Your task to perform on an android device: add a contact Image 0: 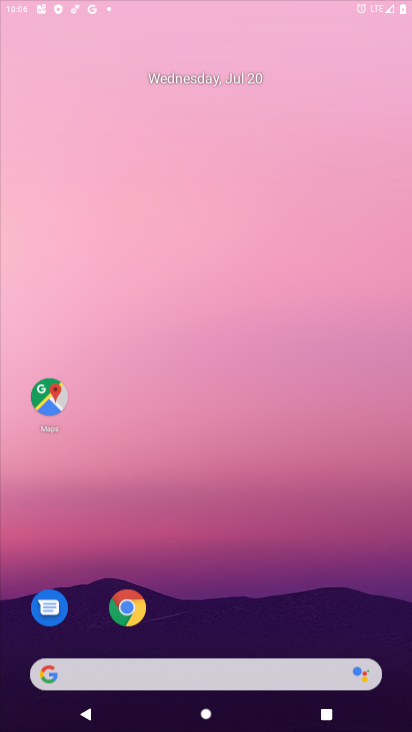
Step 0: press home button
Your task to perform on an android device: add a contact Image 1: 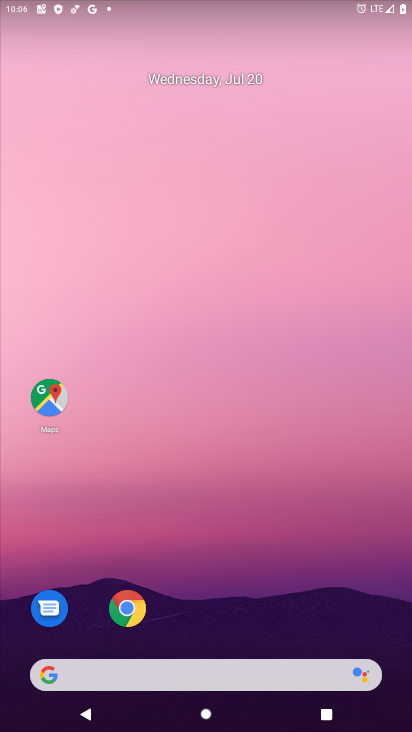
Step 1: drag from (240, 642) to (247, 109)
Your task to perform on an android device: add a contact Image 2: 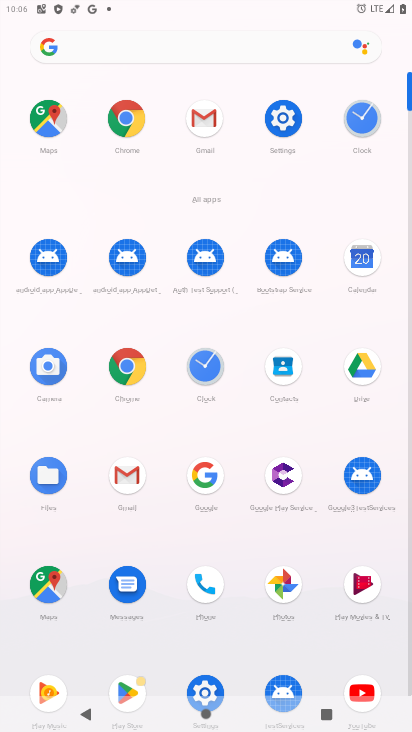
Step 2: click (281, 359)
Your task to perform on an android device: add a contact Image 3: 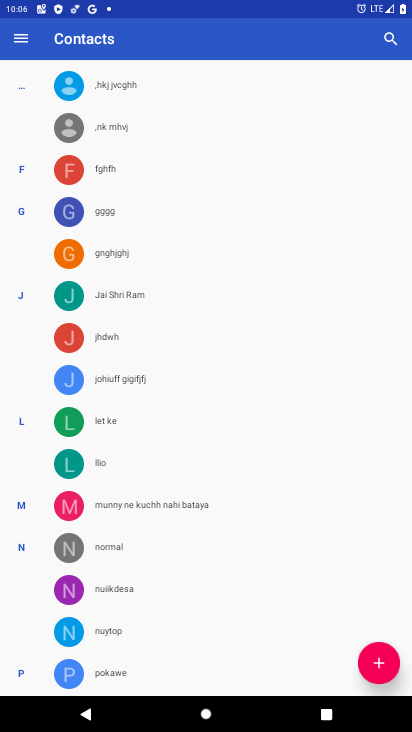
Step 3: click (378, 661)
Your task to perform on an android device: add a contact Image 4: 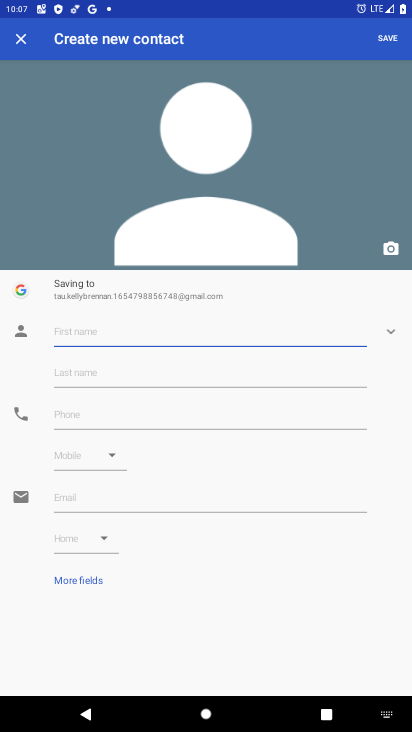
Step 4: type "aprnkt"
Your task to perform on an android device: add a contact Image 5: 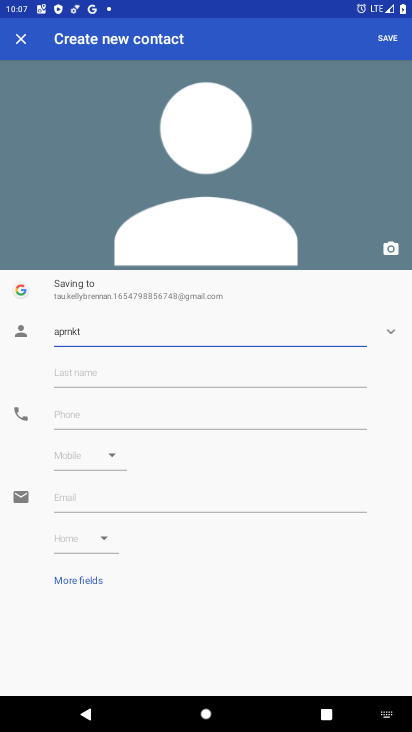
Step 5: click (386, 34)
Your task to perform on an android device: add a contact Image 6: 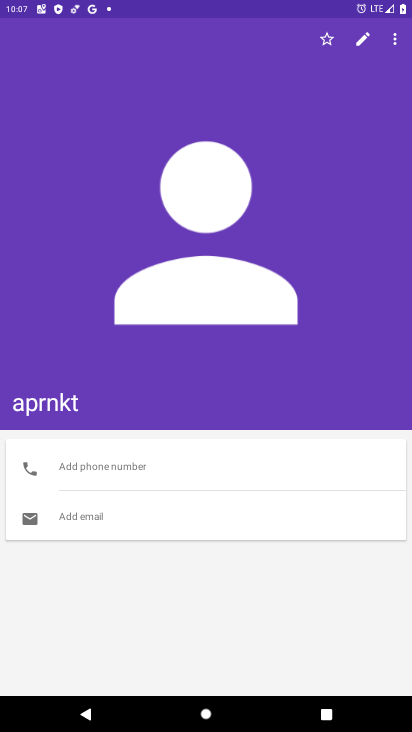
Step 6: task complete